Your task to perform on an android device: read, delete, or share a saved page in the chrome app Image 0: 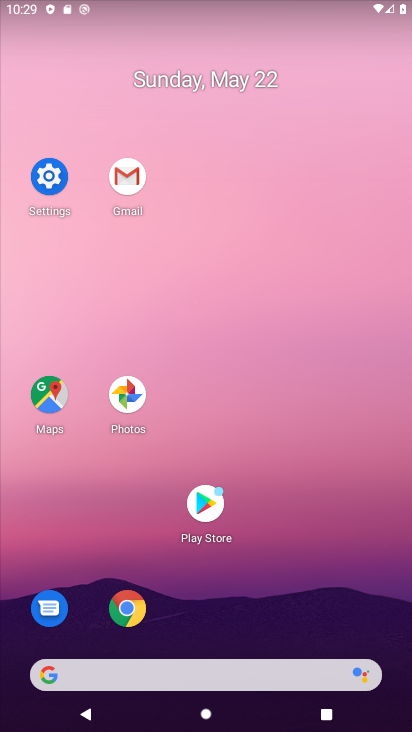
Step 0: click (121, 607)
Your task to perform on an android device: read, delete, or share a saved page in the chrome app Image 1: 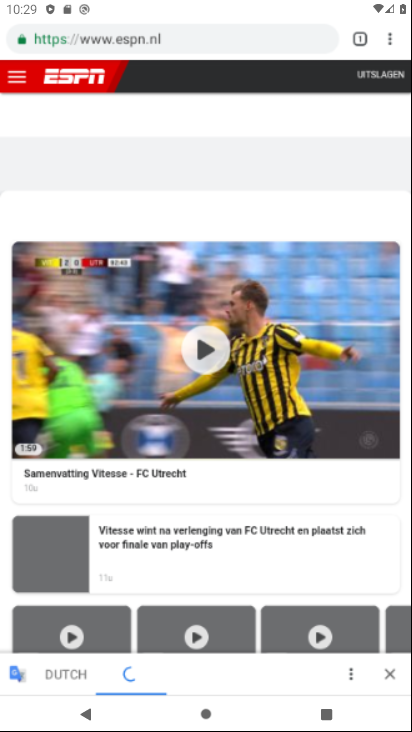
Step 1: click (398, 34)
Your task to perform on an android device: read, delete, or share a saved page in the chrome app Image 2: 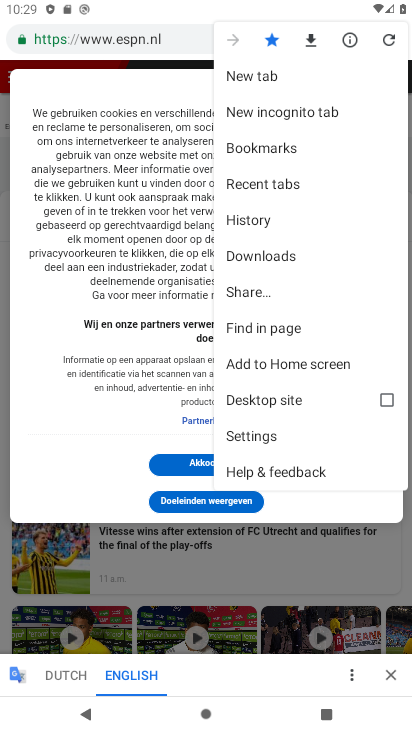
Step 2: click (294, 251)
Your task to perform on an android device: read, delete, or share a saved page in the chrome app Image 3: 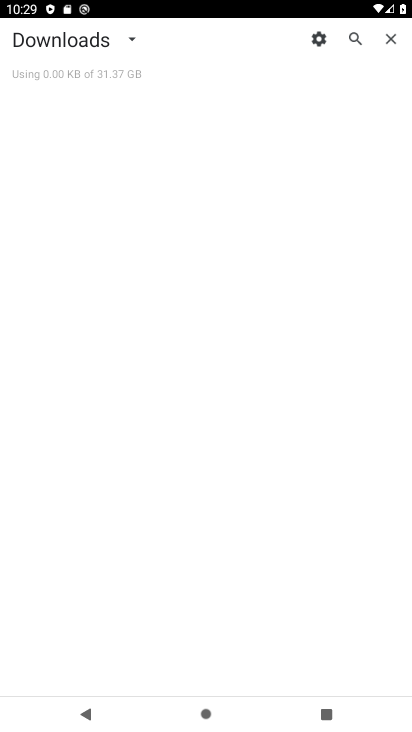
Step 3: task complete